Your task to perform on an android device: check the backup settings in the google photos Image 0: 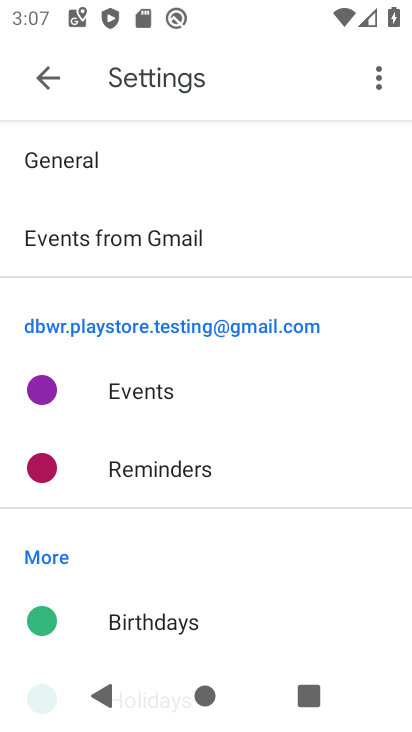
Step 0: press back button
Your task to perform on an android device: check the backup settings in the google photos Image 1: 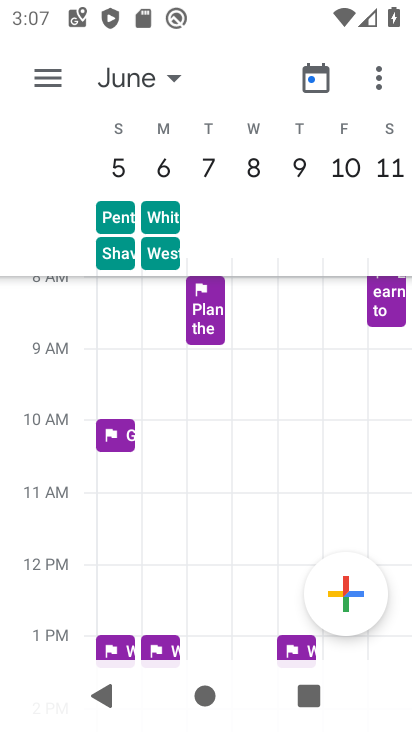
Step 1: press home button
Your task to perform on an android device: check the backup settings in the google photos Image 2: 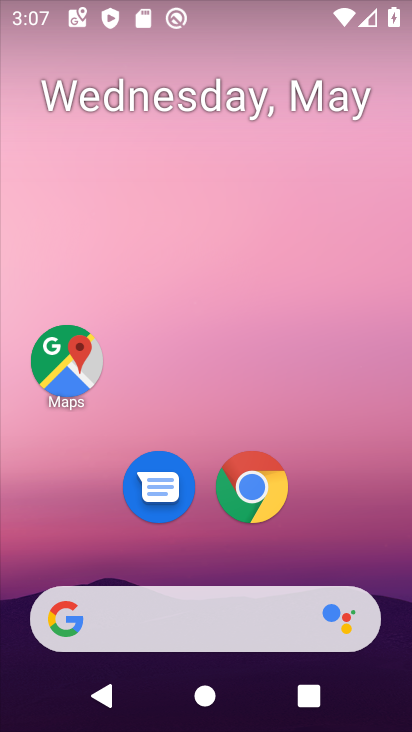
Step 2: drag from (330, 489) to (227, 48)
Your task to perform on an android device: check the backup settings in the google photos Image 3: 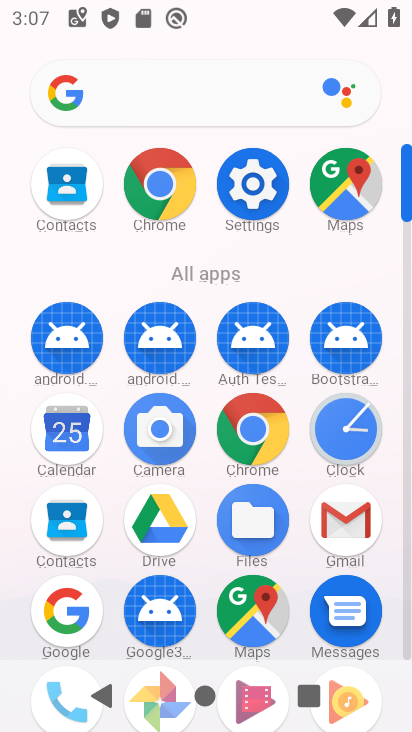
Step 3: drag from (6, 622) to (20, 323)
Your task to perform on an android device: check the backup settings in the google photos Image 4: 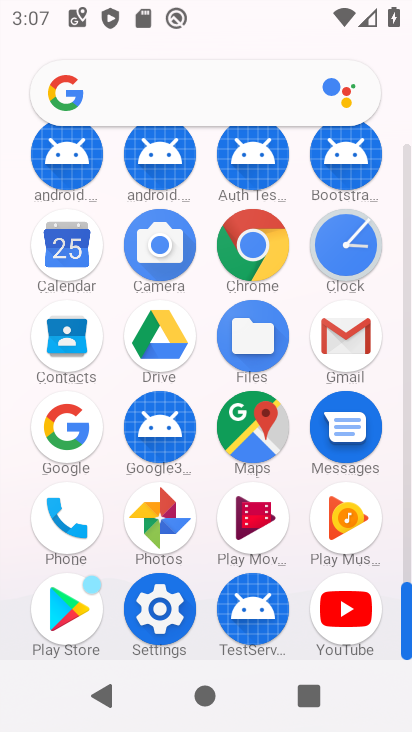
Step 4: click (158, 514)
Your task to perform on an android device: check the backup settings in the google photos Image 5: 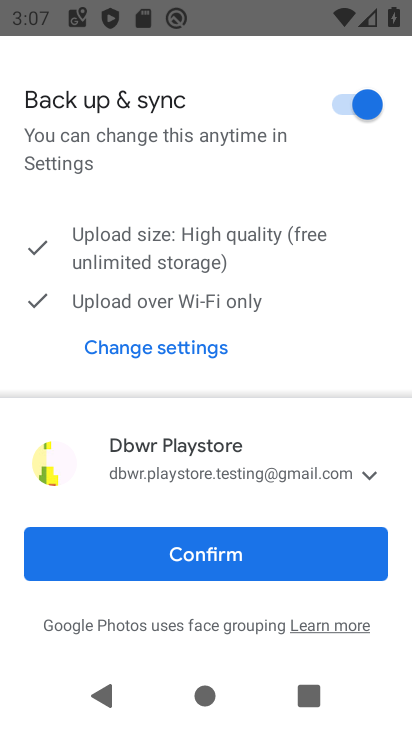
Step 5: click (194, 553)
Your task to perform on an android device: check the backup settings in the google photos Image 6: 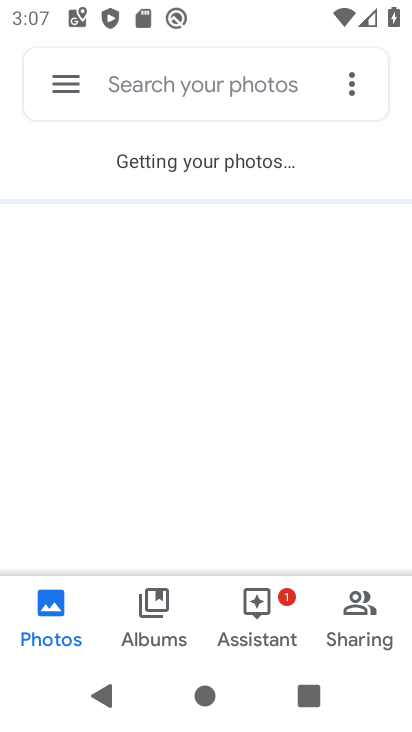
Step 6: click (52, 73)
Your task to perform on an android device: check the backup settings in the google photos Image 7: 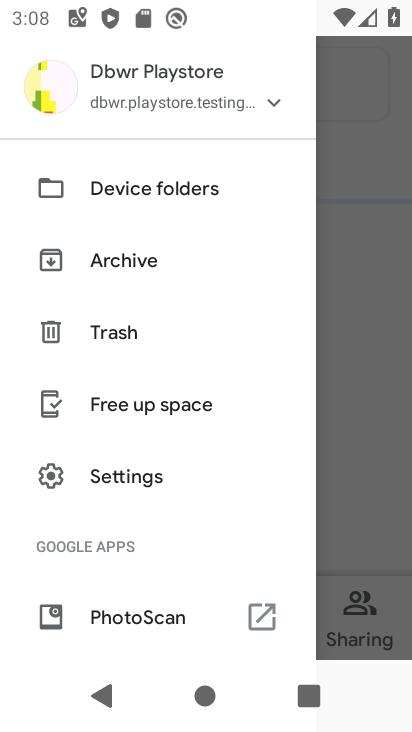
Step 7: click (126, 480)
Your task to perform on an android device: check the backup settings in the google photos Image 8: 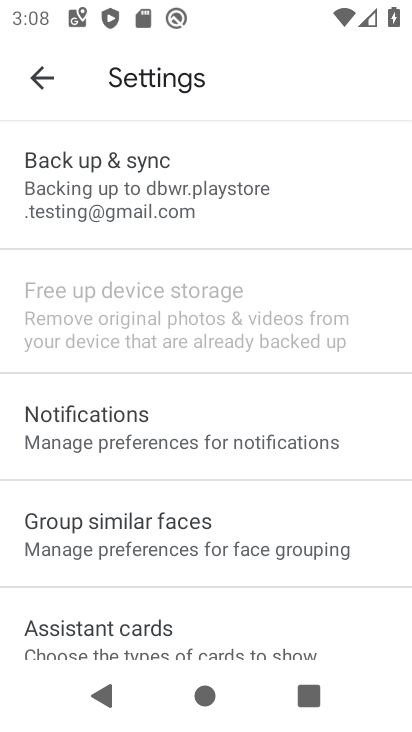
Step 8: click (145, 188)
Your task to perform on an android device: check the backup settings in the google photos Image 9: 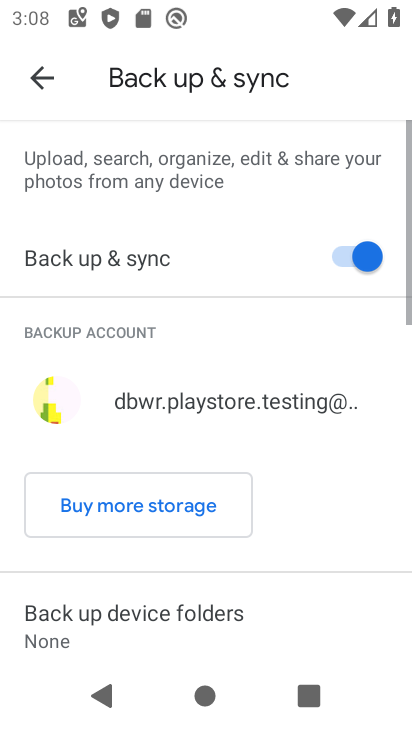
Step 9: task complete